Your task to perform on an android device: turn off priority inbox in the gmail app Image 0: 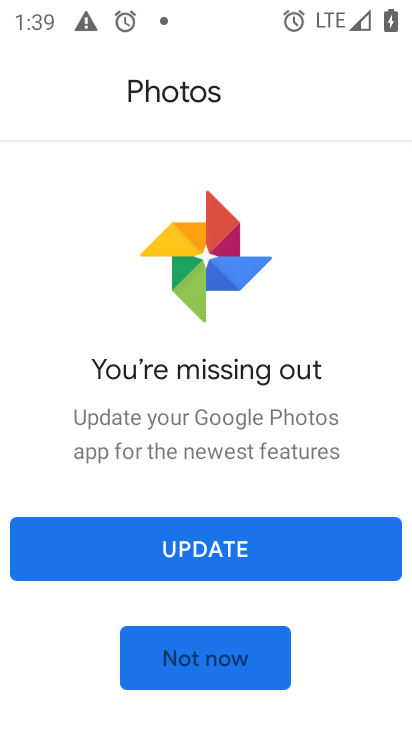
Step 0: press home button
Your task to perform on an android device: turn off priority inbox in the gmail app Image 1: 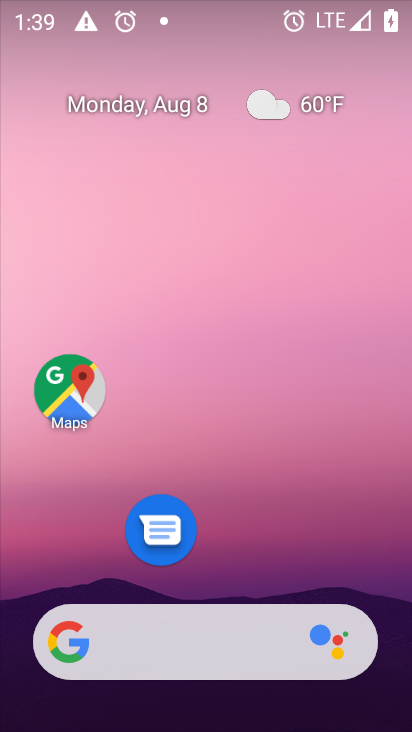
Step 1: drag from (223, 583) to (224, 56)
Your task to perform on an android device: turn off priority inbox in the gmail app Image 2: 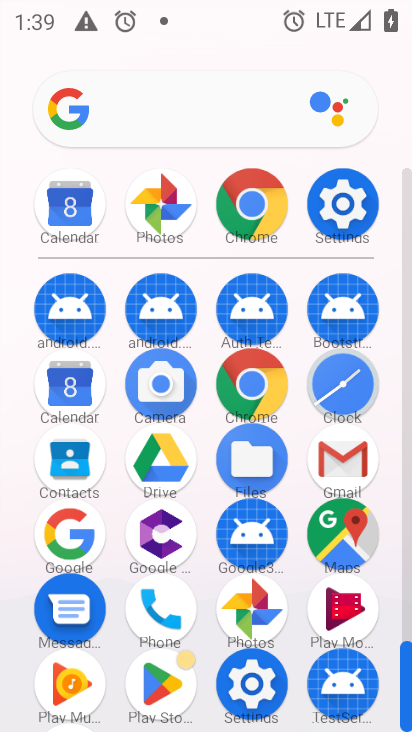
Step 2: click (344, 459)
Your task to perform on an android device: turn off priority inbox in the gmail app Image 3: 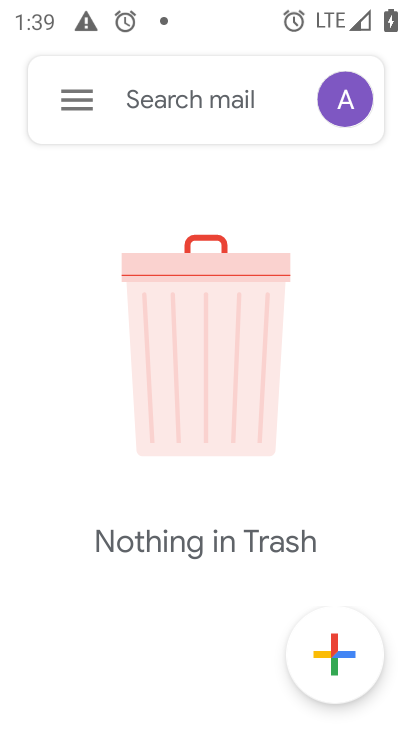
Step 3: click (74, 98)
Your task to perform on an android device: turn off priority inbox in the gmail app Image 4: 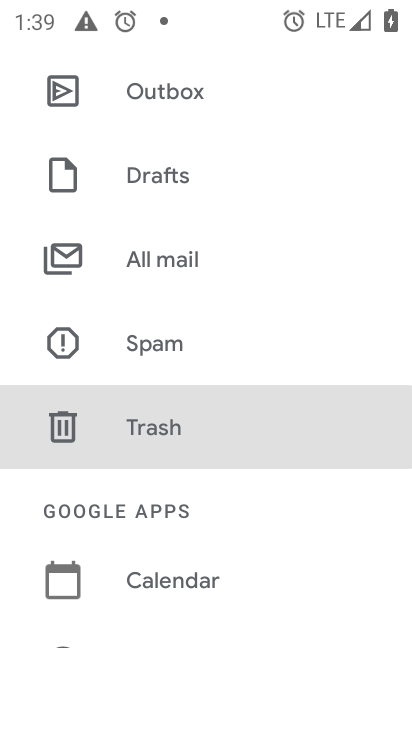
Step 4: drag from (191, 555) to (192, 138)
Your task to perform on an android device: turn off priority inbox in the gmail app Image 5: 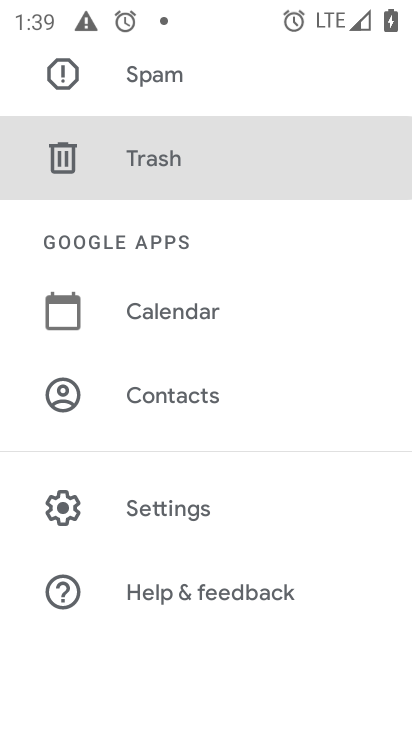
Step 5: click (189, 514)
Your task to perform on an android device: turn off priority inbox in the gmail app Image 6: 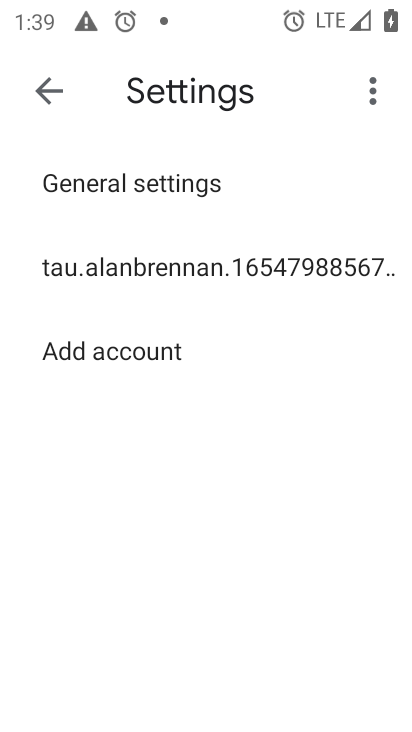
Step 6: click (131, 265)
Your task to perform on an android device: turn off priority inbox in the gmail app Image 7: 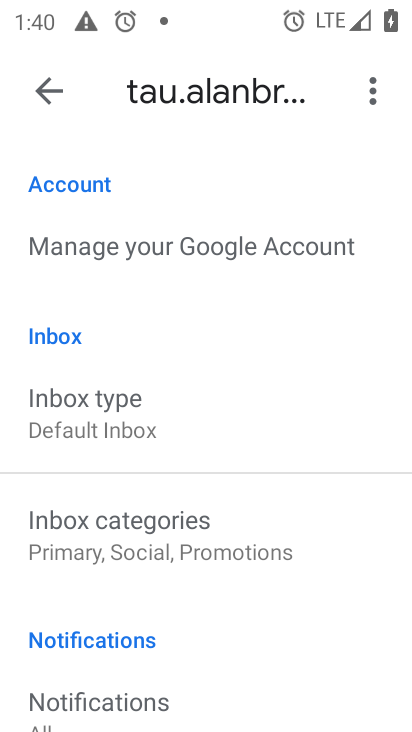
Step 7: task complete